Your task to perform on an android device: Search for sushi restaurants on Maps Image 0: 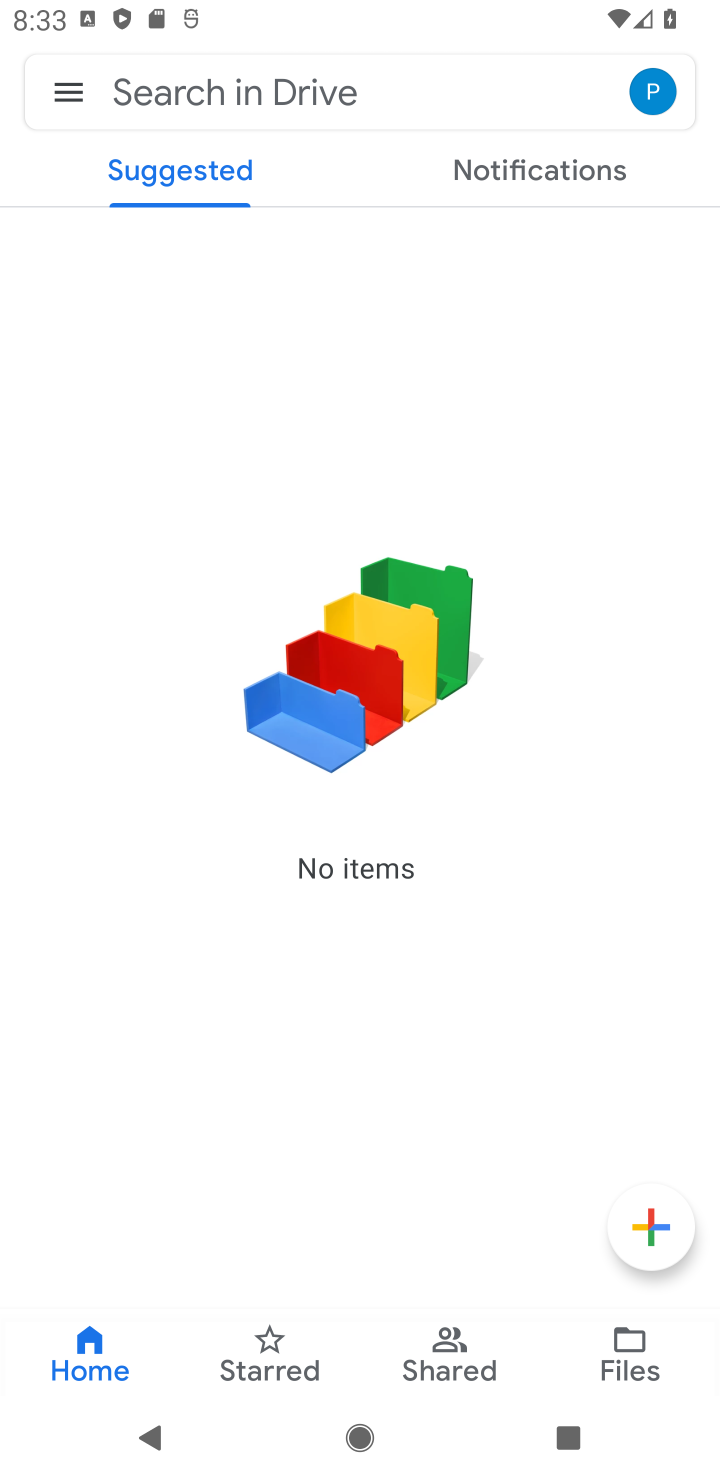
Step 0: press home button
Your task to perform on an android device: Search for sushi restaurants on Maps Image 1: 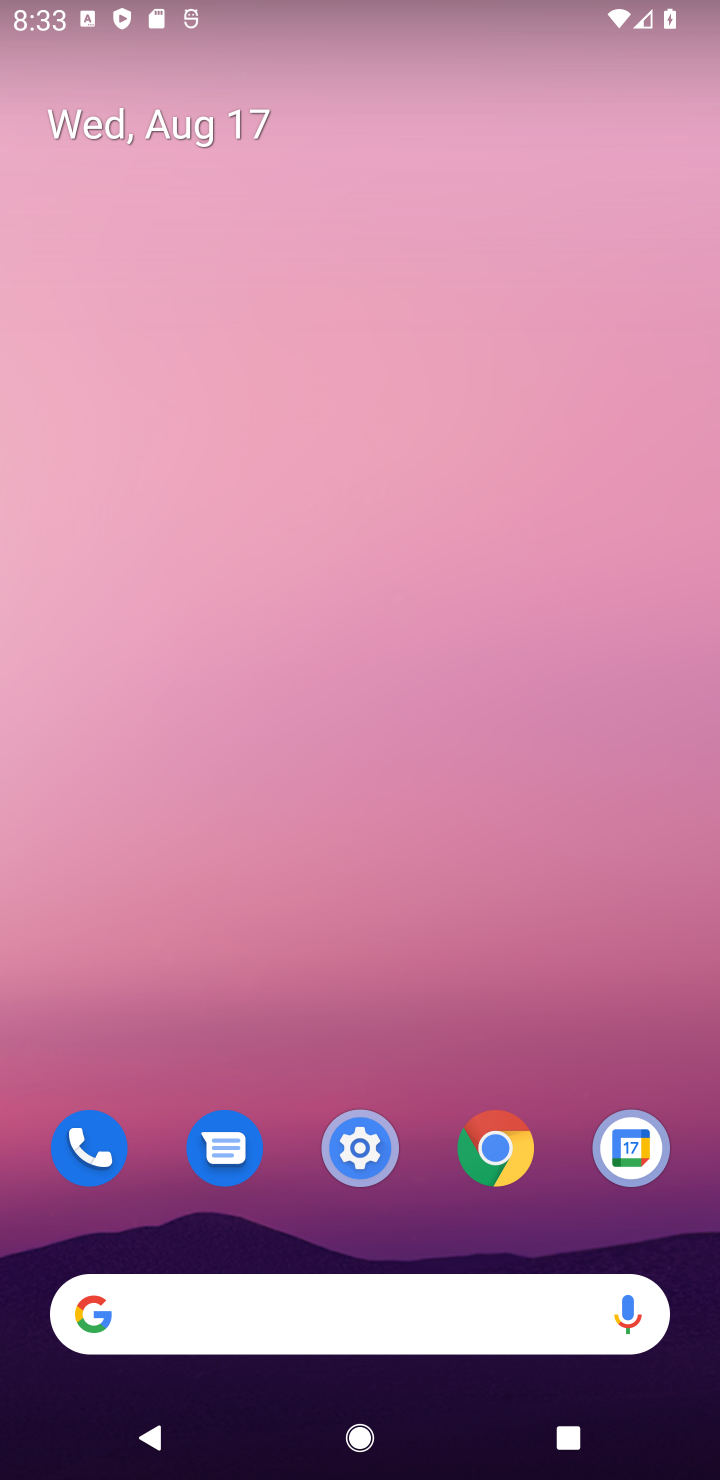
Step 1: drag from (572, 1252) to (598, 263)
Your task to perform on an android device: Search for sushi restaurants on Maps Image 2: 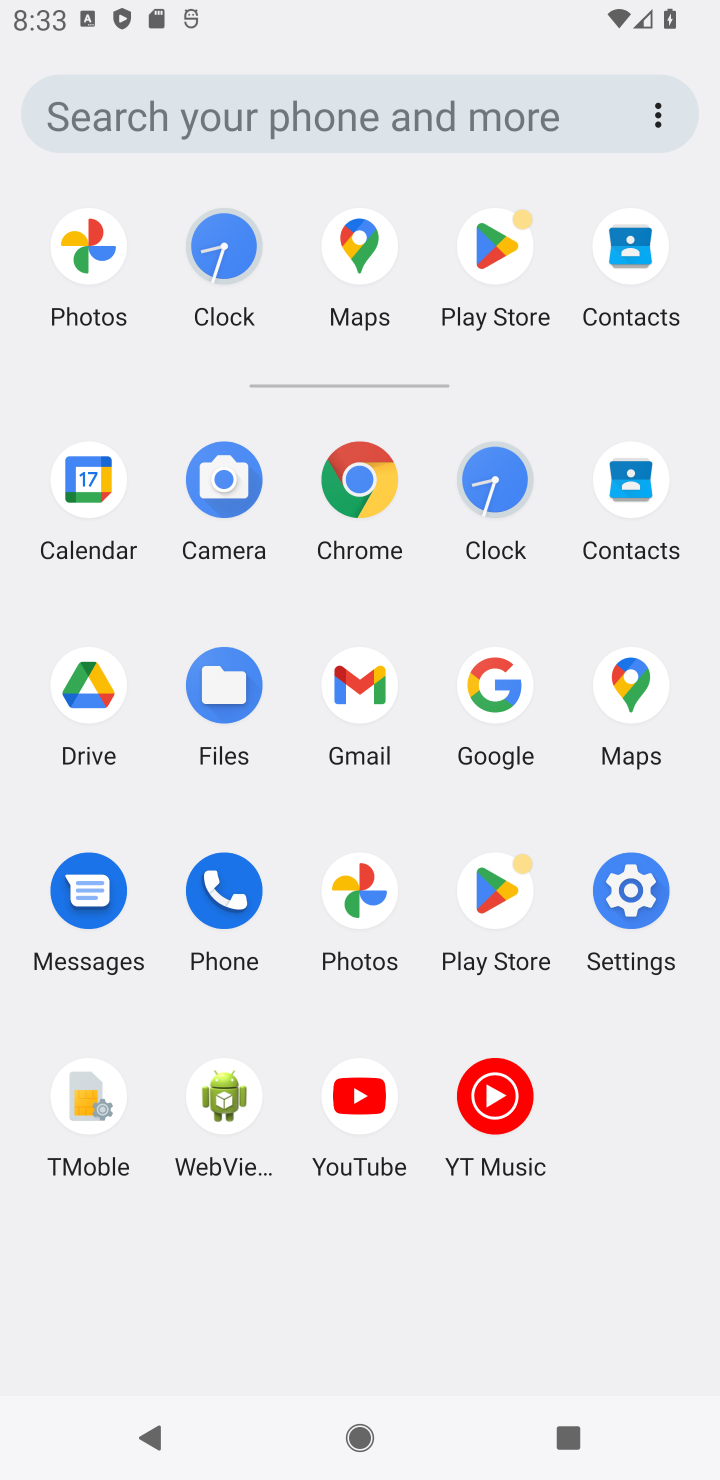
Step 2: click (635, 680)
Your task to perform on an android device: Search for sushi restaurants on Maps Image 3: 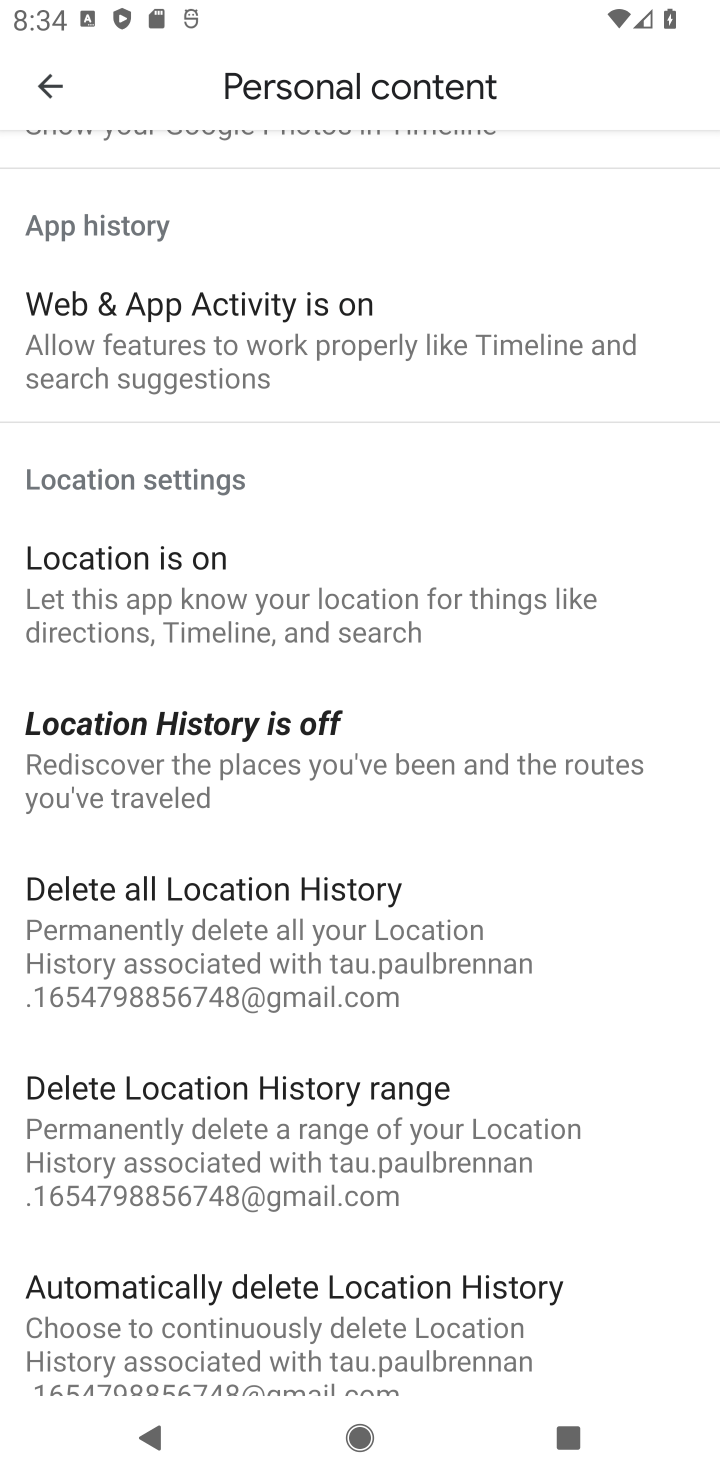
Step 3: press back button
Your task to perform on an android device: Search for sushi restaurants on Maps Image 4: 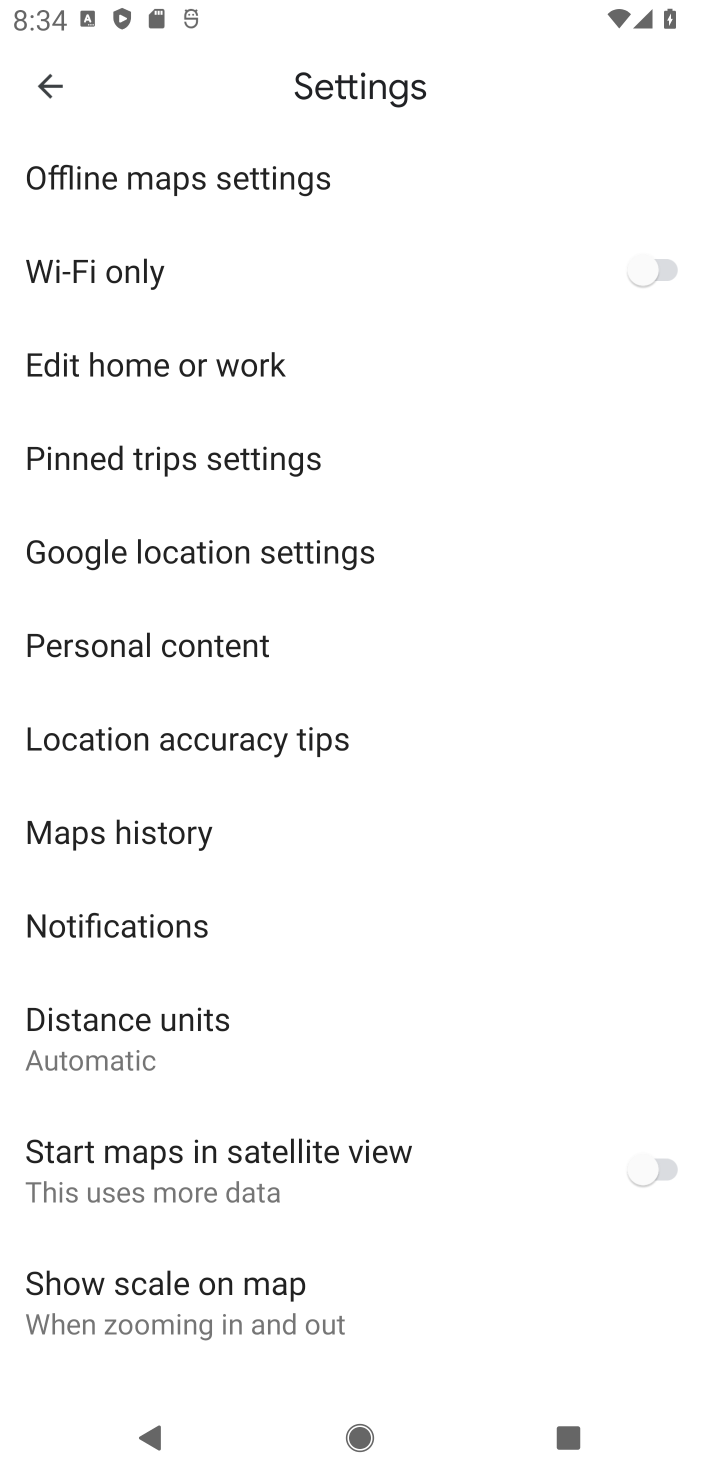
Step 4: press back button
Your task to perform on an android device: Search for sushi restaurants on Maps Image 5: 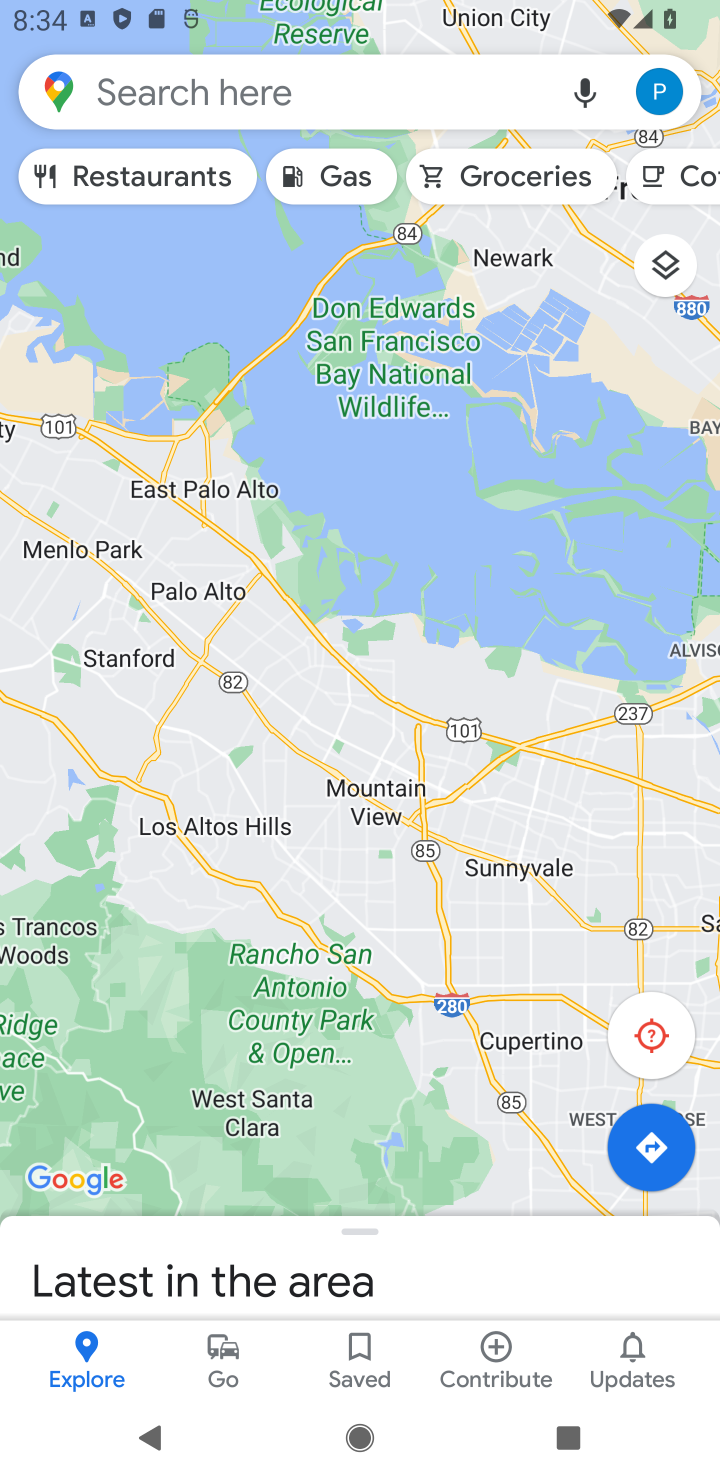
Step 5: click (282, 87)
Your task to perform on an android device: Search for sushi restaurants on Maps Image 6: 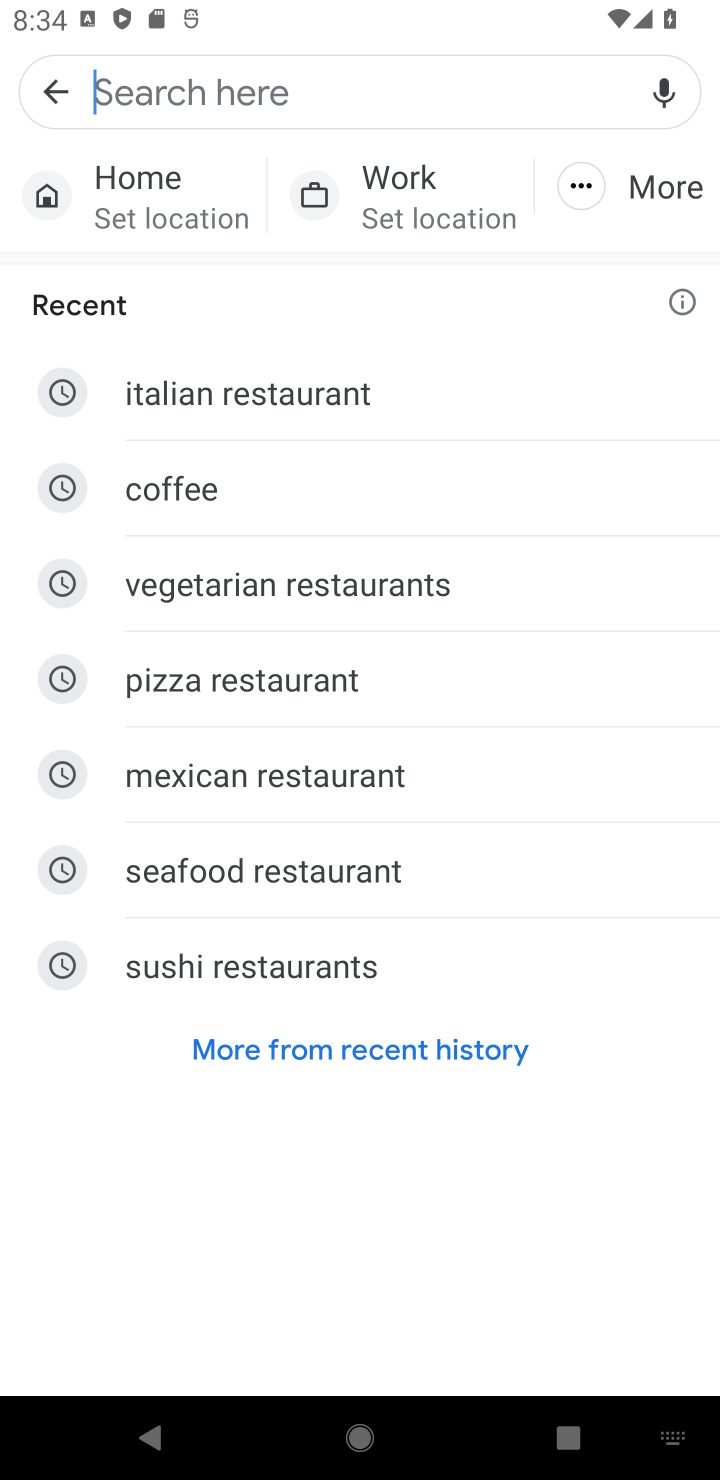
Step 6: type "sushi restaurants"
Your task to perform on an android device: Search for sushi restaurants on Maps Image 7: 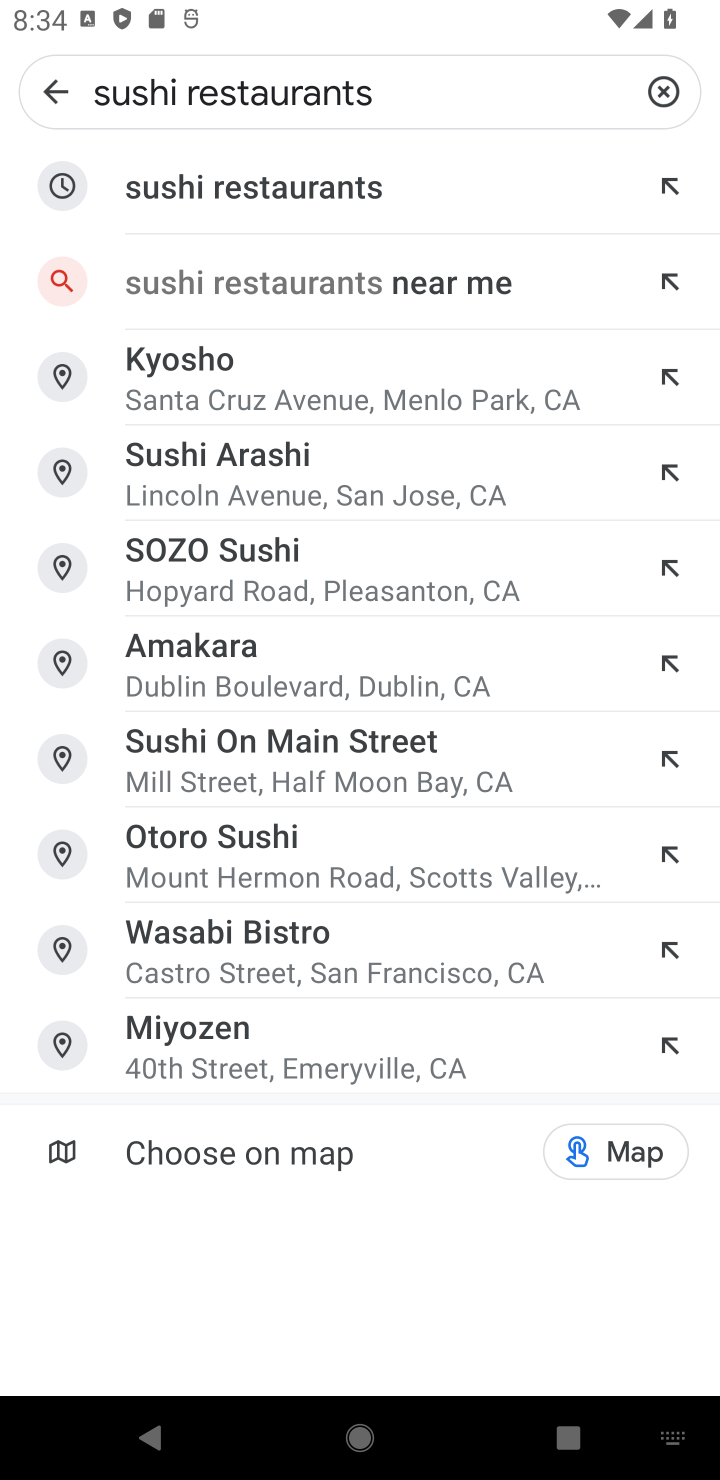
Step 7: click (249, 179)
Your task to perform on an android device: Search for sushi restaurants on Maps Image 8: 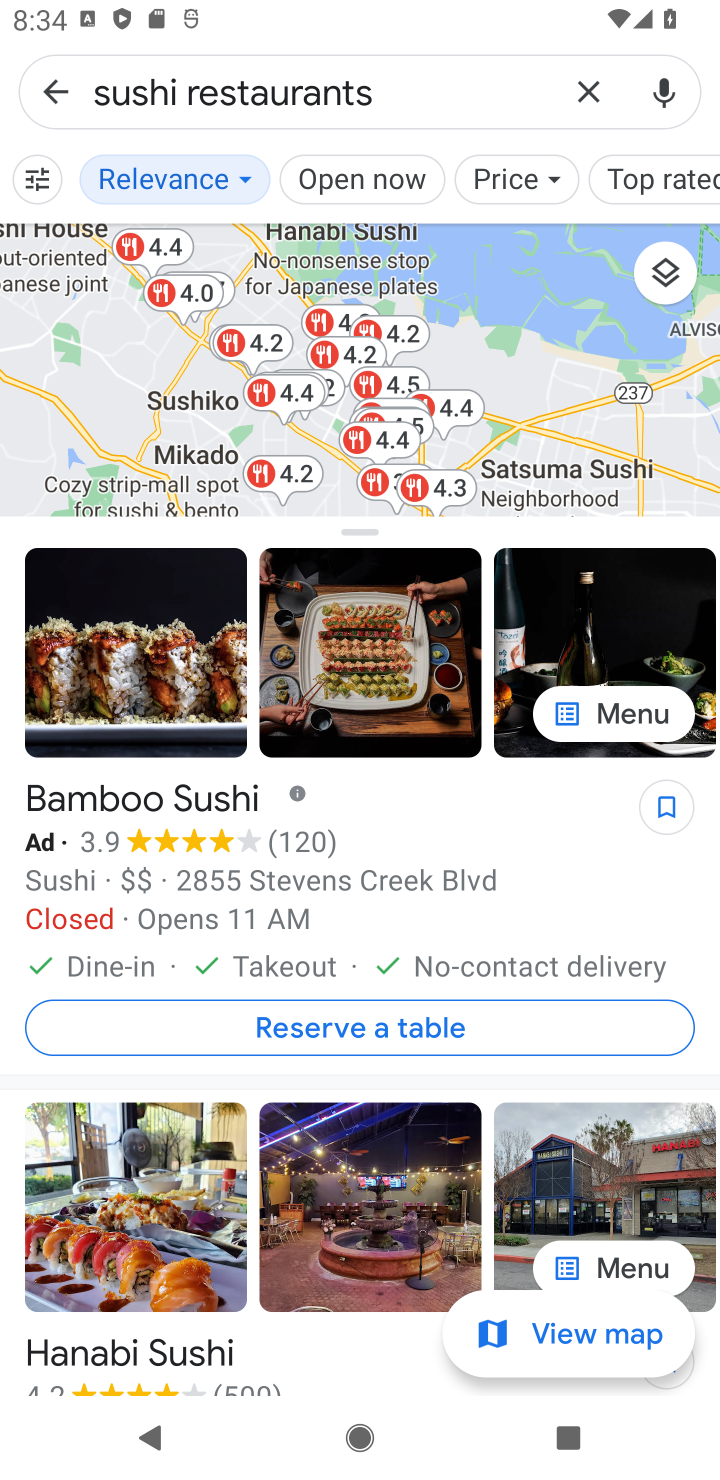
Step 8: task complete